Your task to perform on an android device: Open the calendar and show me this week's events? Image 0: 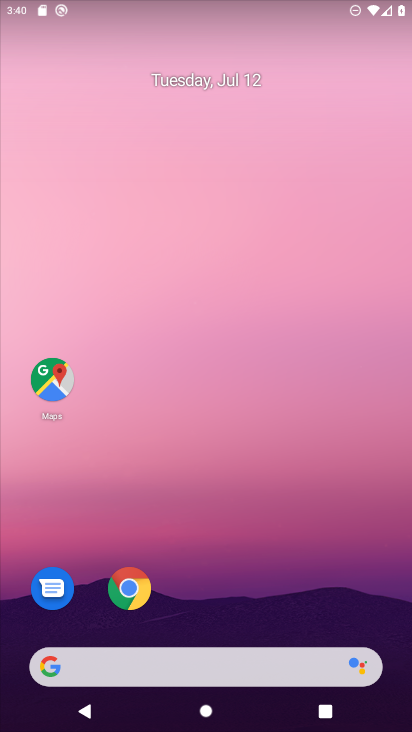
Step 0: drag from (281, 626) to (255, 149)
Your task to perform on an android device: Open the calendar and show me this week's events? Image 1: 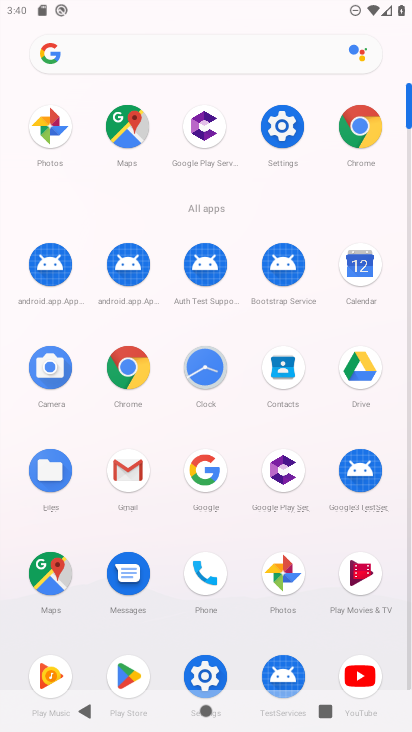
Step 1: click (362, 275)
Your task to perform on an android device: Open the calendar and show me this week's events? Image 2: 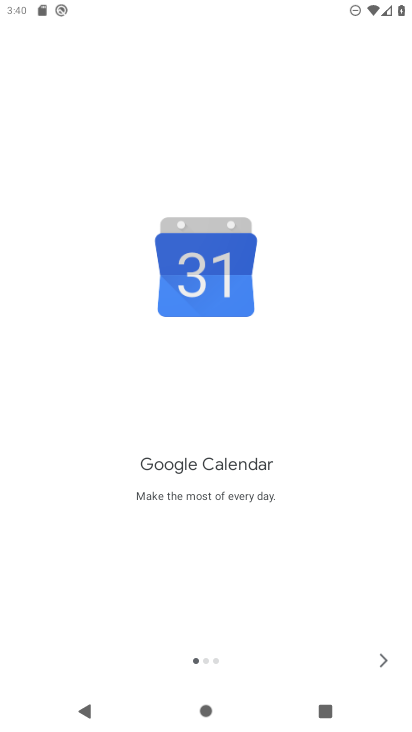
Step 2: click (379, 658)
Your task to perform on an android device: Open the calendar and show me this week's events? Image 3: 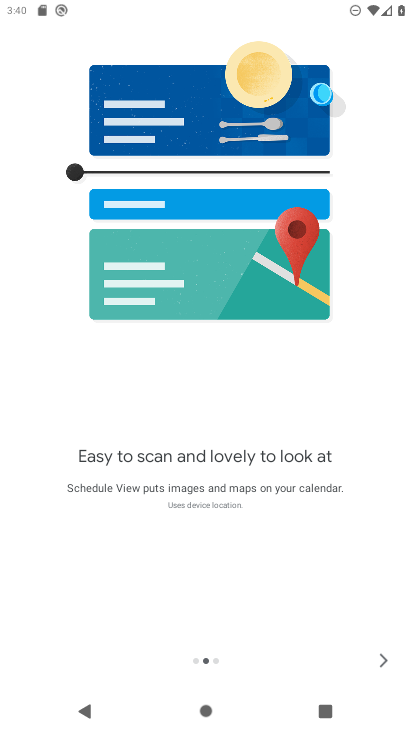
Step 3: click (379, 658)
Your task to perform on an android device: Open the calendar and show me this week's events? Image 4: 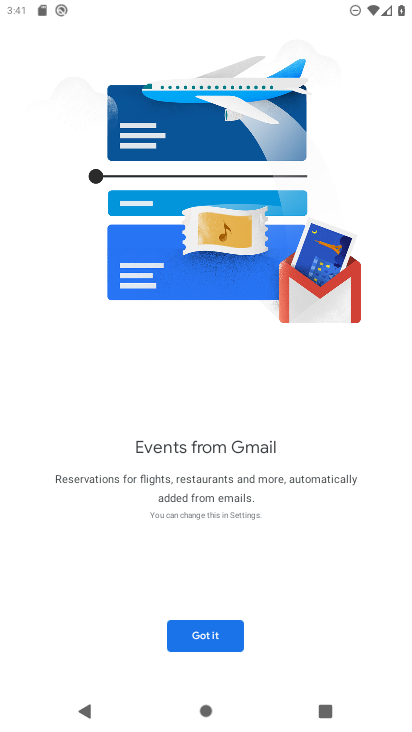
Step 4: click (215, 637)
Your task to perform on an android device: Open the calendar and show me this week's events? Image 5: 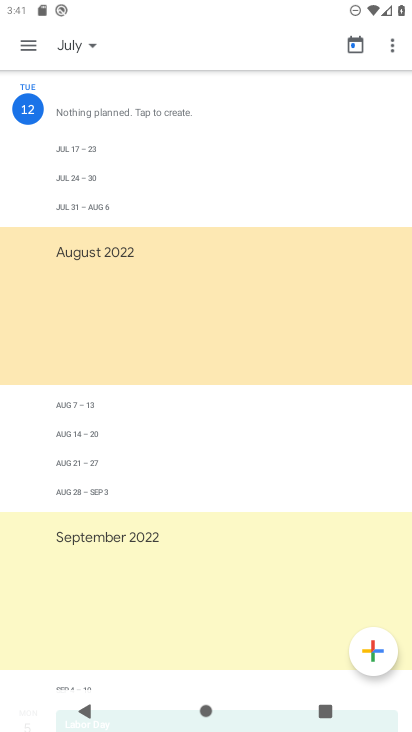
Step 5: click (25, 43)
Your task to perform on an android device: Open the calendar and show me this week's events? Image 6: 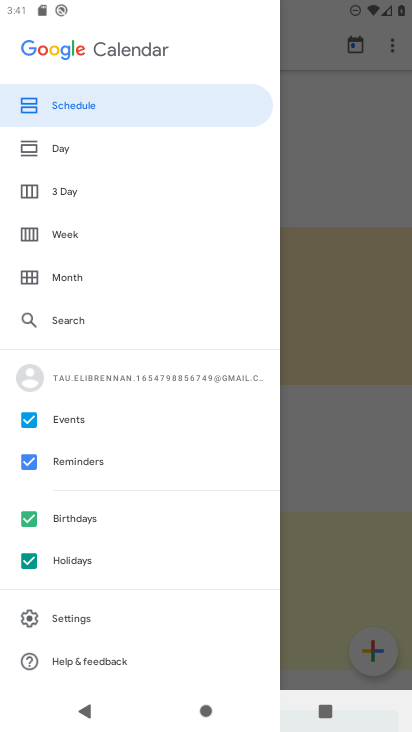
Step 6: click (21, 563)
Your task to perform on an android device: Open the calendar and show me this week's events? Image 7: 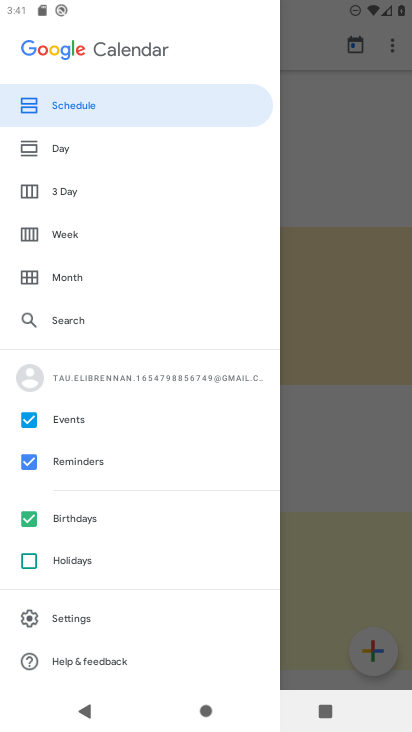
Step 7: click (30, 522)
Your task to perform on an android device: Open the calendar and show me this week's events? Image 8: 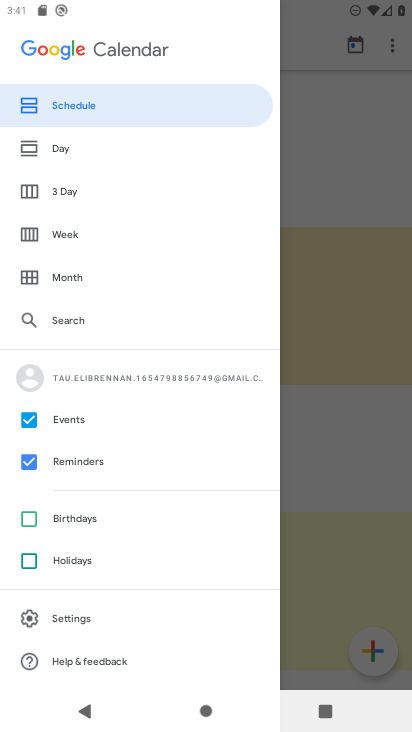
Step 8: click (26, 465)
Your task to perform on an android device: Open the calendar and show me this week's events? Image 9: 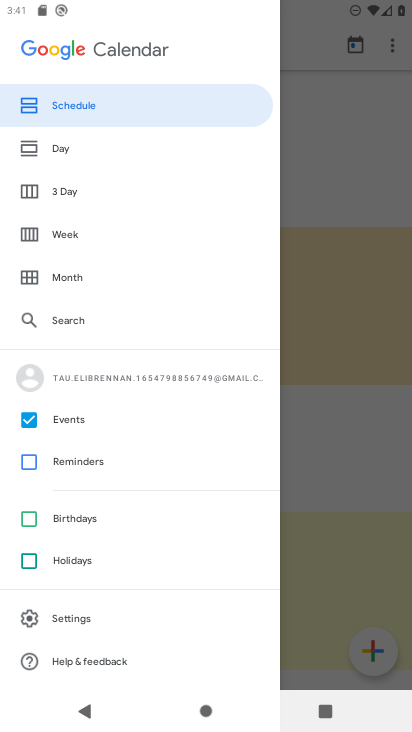
Step 9: click (69, 234)
Your task to perform on an android device: Open the calendar and show me this week's events? Image 10: 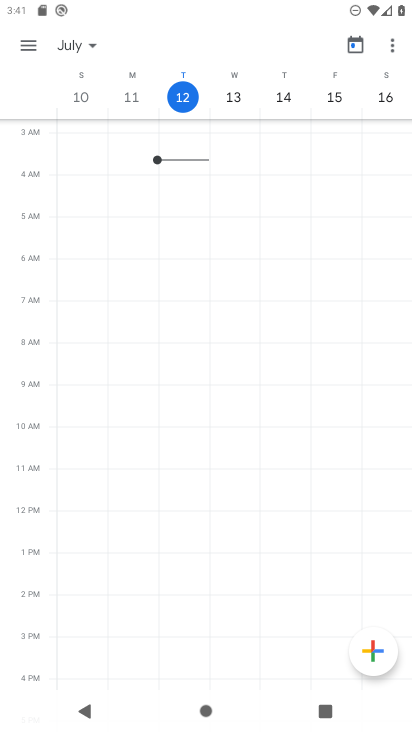
Step 10: task complete